Your task to perform on an android device: show emergency info Image 0: 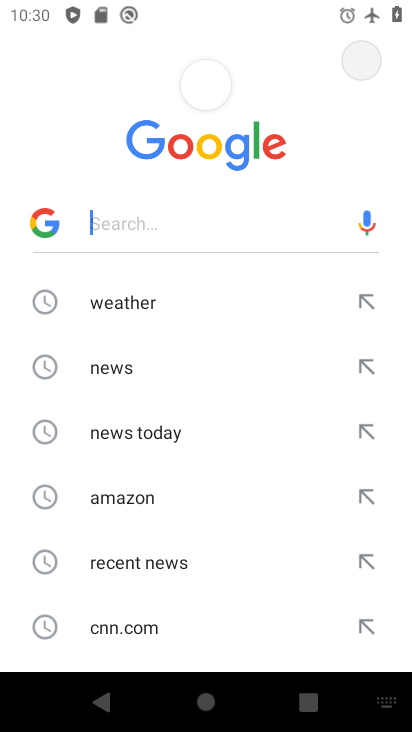
Step 0: press home button
Your task to perform on an android device: show emergency info Image 1: 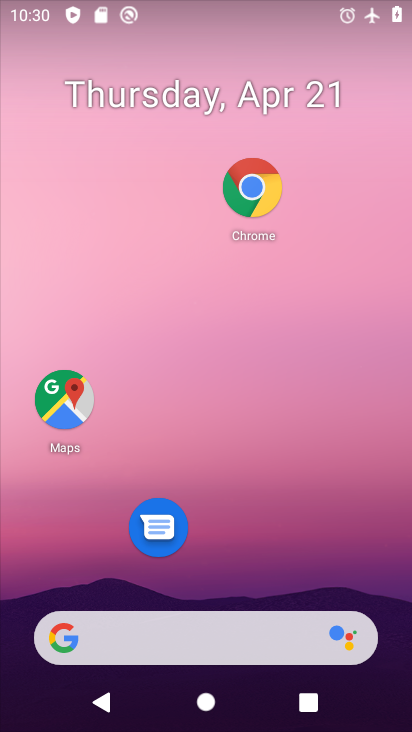
Step 1: drag from (343, 571) to (365, 256)
Your task to perform on an android device: show emergency info Image 2: 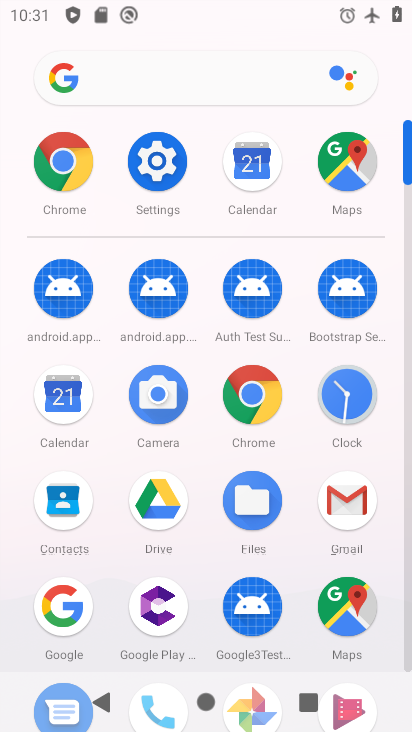
Step 2: click (162, 162)
Your task to perform on an android device: show emergency info Image 3: 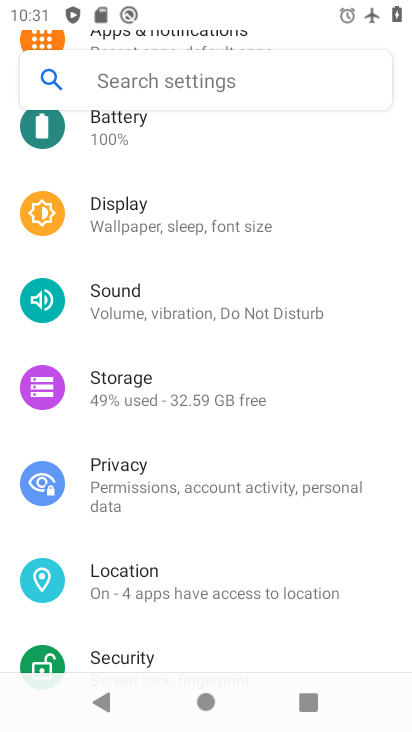
Step 3: drag from (195, 535) to (248, 103)
Your task to perform on an android device: show emergency info Image 4: 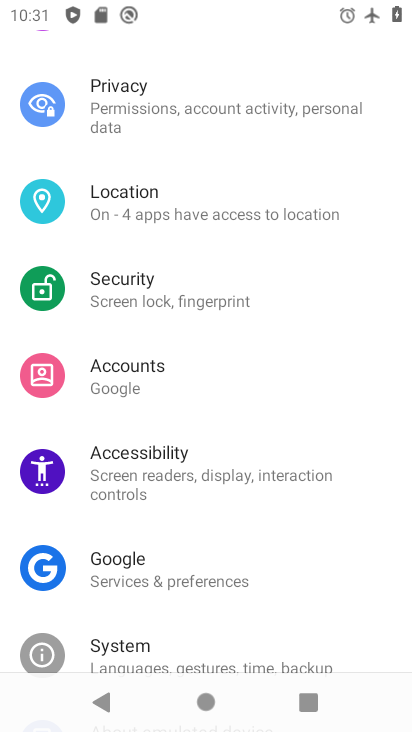
Step 4: drag from (216, 492) to (250, 209)
Your task to perform on an android device: show emergency info Image 5: 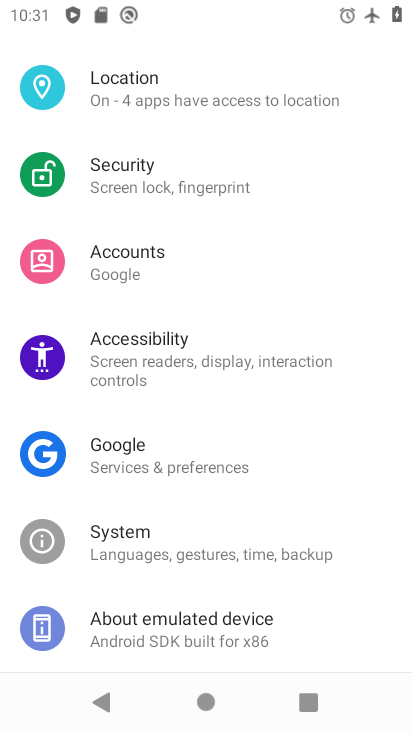
Step 5: drag from (228, 521) to (244, 243)
Your task to perform on an android device: show emergency info Image 6: 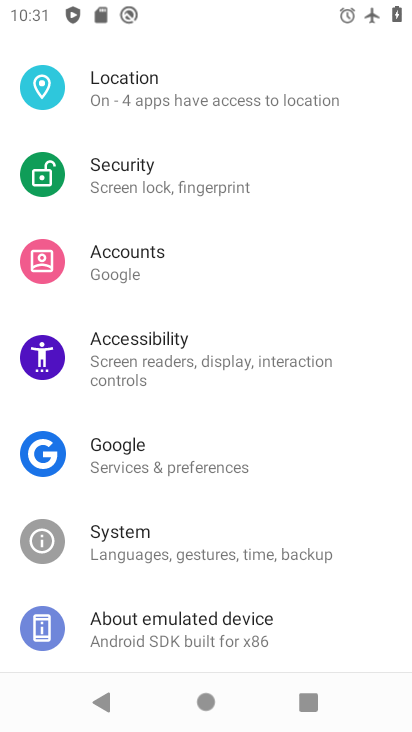
Step 6: click (221, 626)
Your task to perform on an android device: show emergency info Image 7: 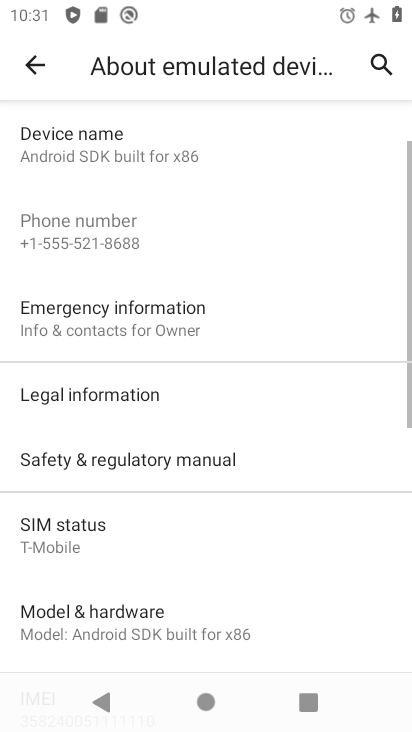
Step 7: click (188, 318)
Your task to perform on an android device: show emergency info Image 8: 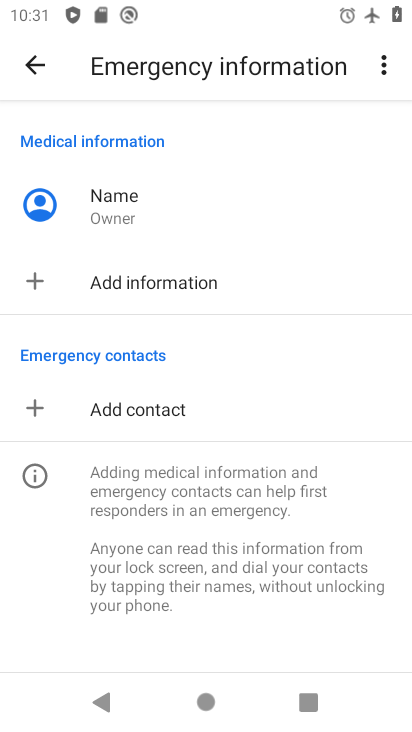
Step 8: task complete